Your task to perform on an android device: clear all cookies in the chrome app Image 0: 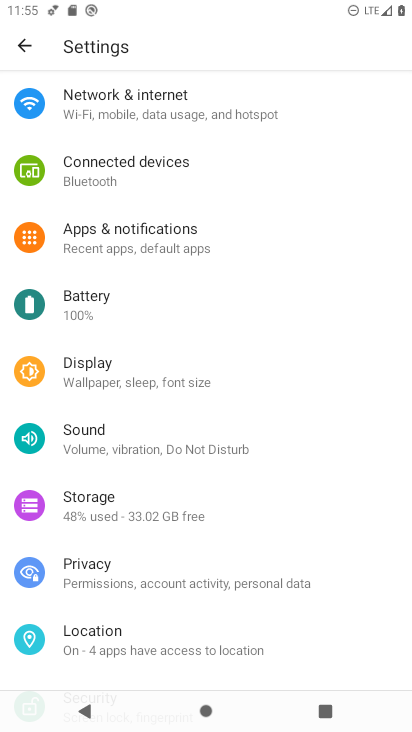
Step 0: press home button
Your task to perform on an android device: clear all cookies in the chrome app Image 1: 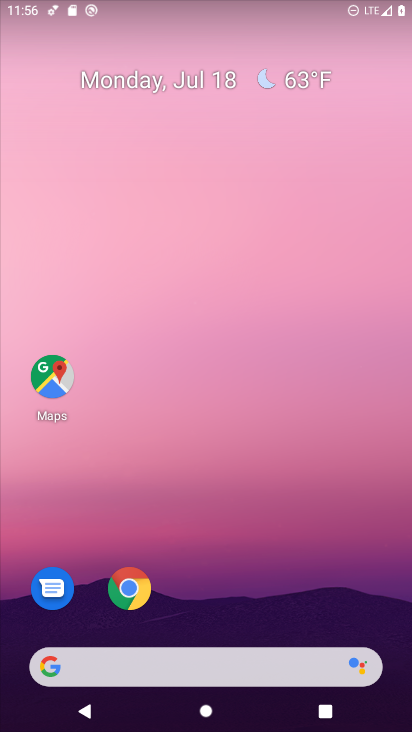
Step 1: click (133, 604)
Your task to perform on an android device: clear all cookies in the chrome app Image 2: 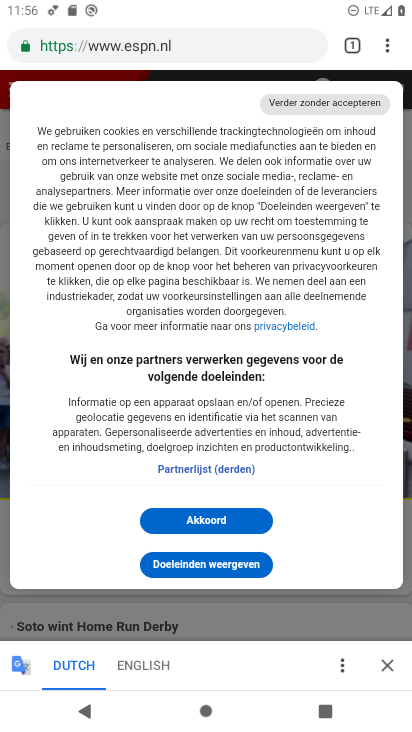
Step 2: click (385, 46)
Your task to perform on an android device: clear all cookies in the chrome app Image 3: 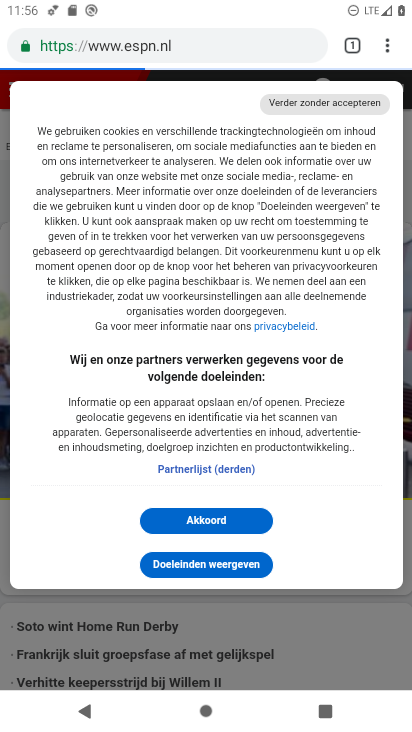
Step 3: click (389, 45)
Your task to perform on an android device: clear all cookies in the chrome app Image 4: 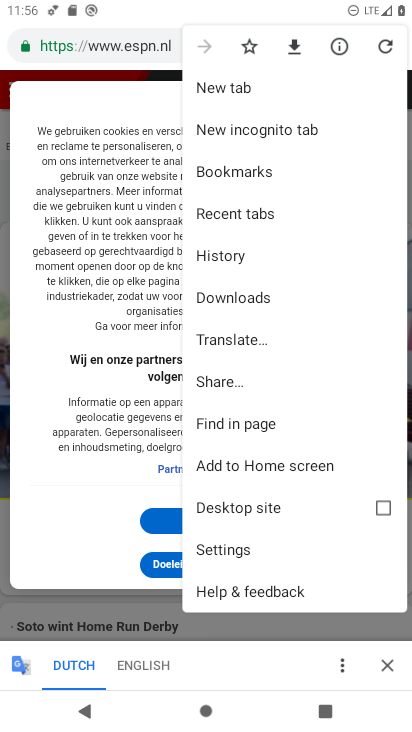
Step 4: click (231, 542)
Your task to perform on an android device: clear all cookies in the chrome app Image 5: 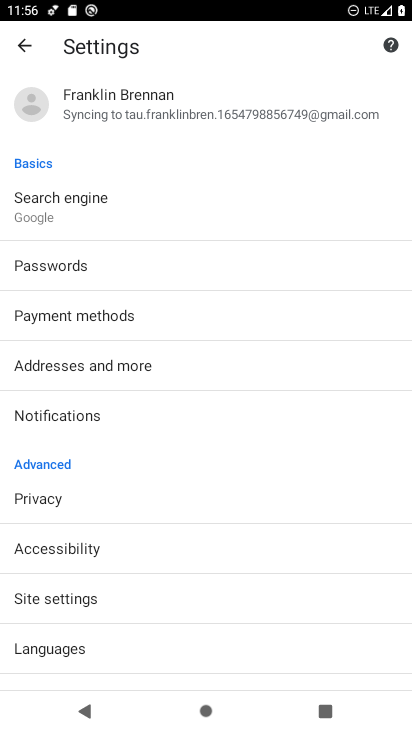
Step 5: click (44, 496)
Your task to perform on an android device: clear all cookies in the chrome app Image 6: 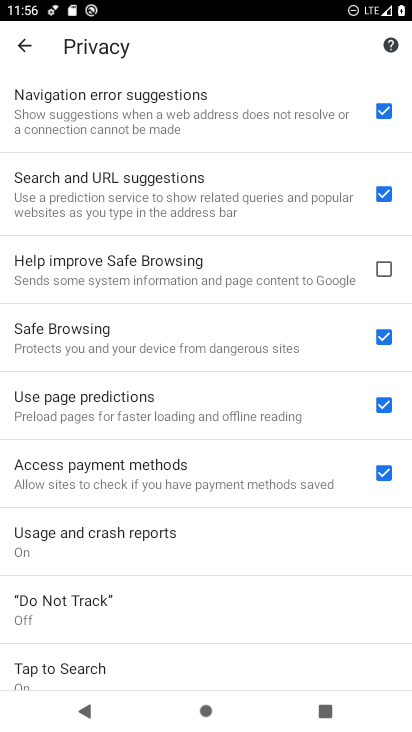
Step 6: drag from (99, 662) to (210, 127)
Your task to perform on an android device: clear all cookies in the chrome app Image 7: 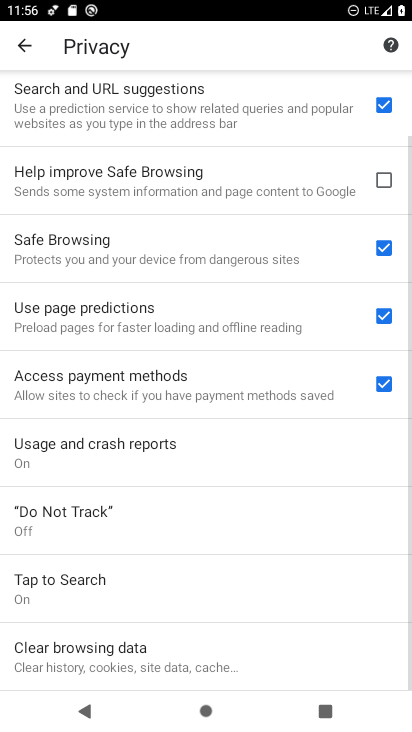
Step 7: click (113, 649)
Your task to perform on an android device: clear all cookies in the chrome app Image 8: 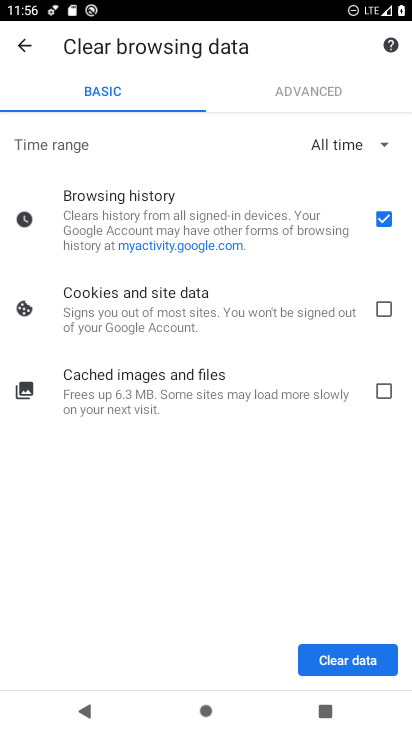
Step 8: click (386, 312)
Your task to perform on an android device: clear all cookies in the chrome app Image 9: 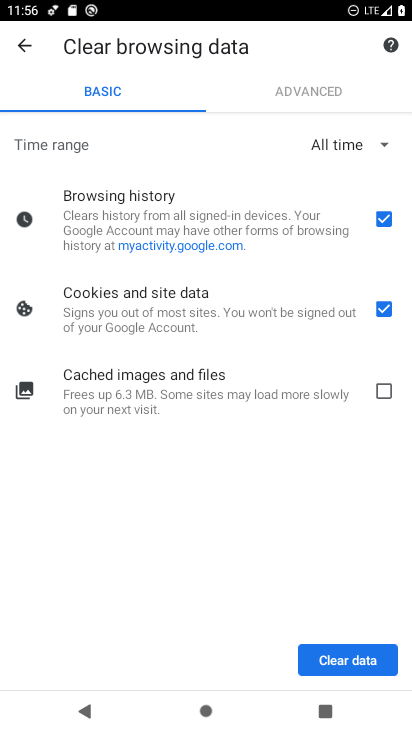
Step 9: click (380, 391)
Your task to perform on an android device: clear all cookies in the chrome app Image 10: 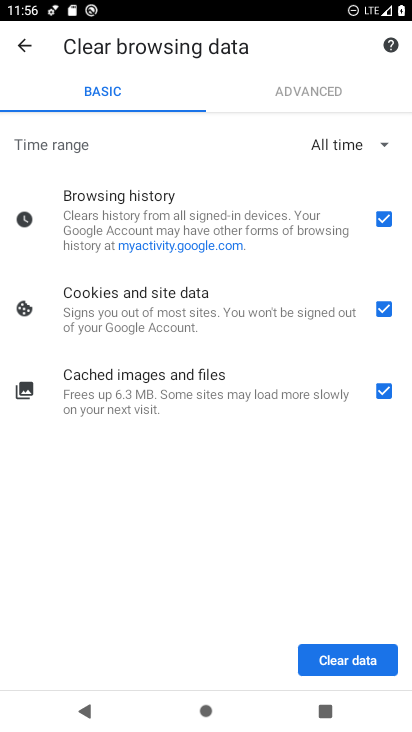
Step 10: click (358, 657)
Your task to perform on an android device: clear all cookies in the chrome app Image 11: 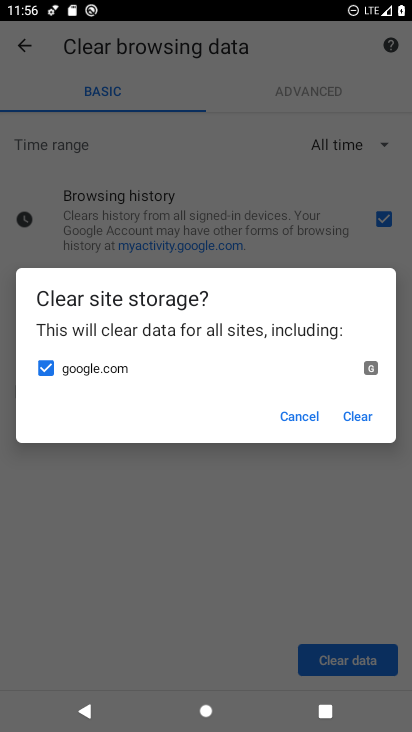
Step 11: click (354, 412)
Your task to perform on an android device: clear all cookies in the chrome app Image 12: 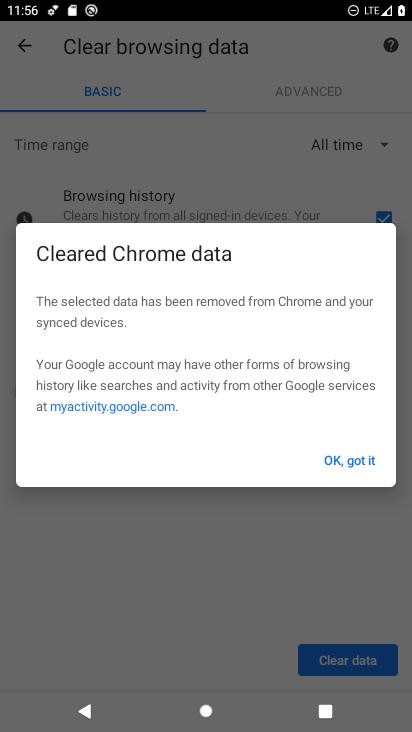
Step 12: click (359, 468)
Your task to perform on an android device: clear all cookies in the chrome app Image 13: 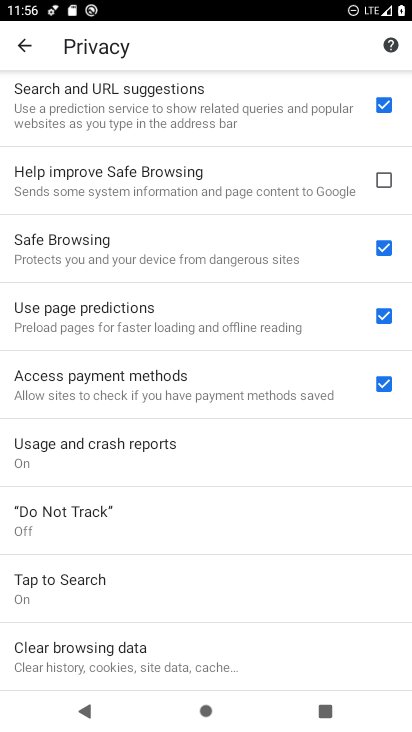
Step 13: task complete